Your task to perform on an android device: Go to accessibility settings Image 0: 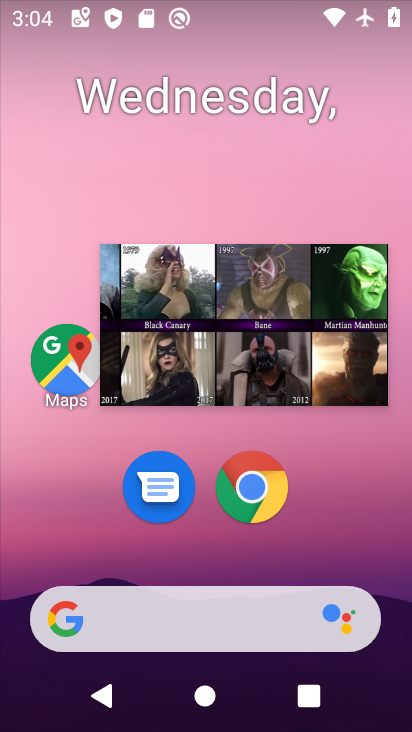
Step 0: click (366, 261)
Your task to perform on an android device: Go to accessibility settings Image 1: 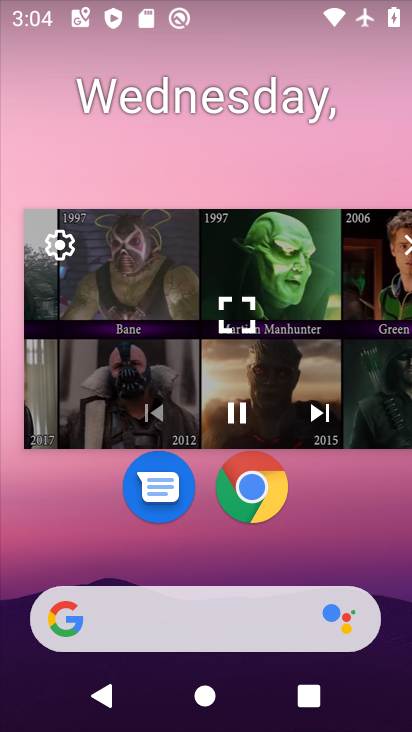
Step 1: click (410, 246)
Your task to perform on an android device: Go to accessibility settings Image 2: 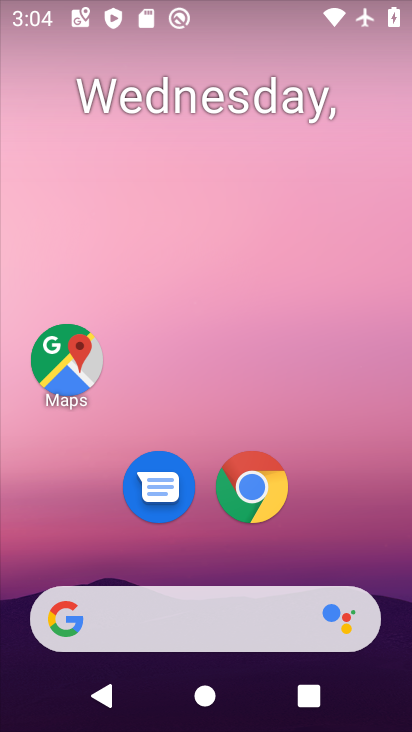
Step 2: drag from (333, 536) to (306, 59)
Your task to perform on an android device: Go to accessibility settings Image 3: 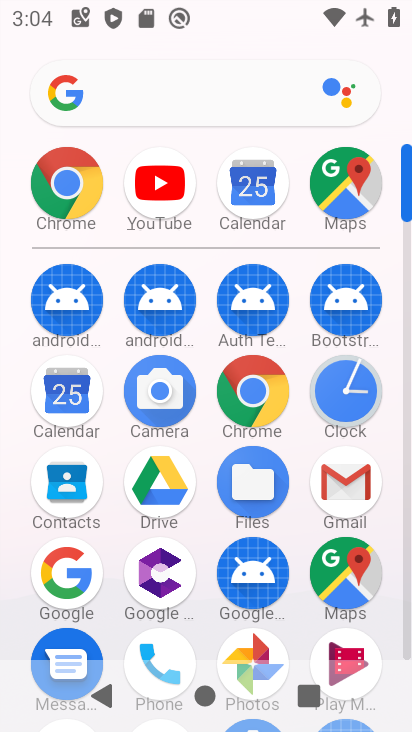
Step 3: drag from (387, 587) to (410, 149)
Your task to perform on an android device: Go to accessibility settings Image 4: 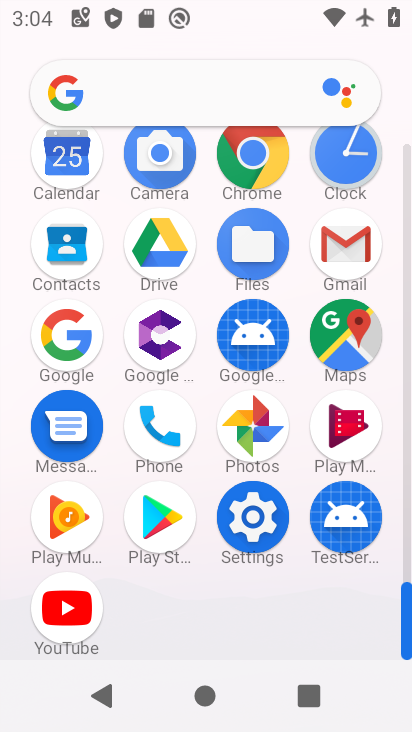
Step 4: click (248, 540)
Your task to perform on an android device: Go to accessibility settings Image 5: 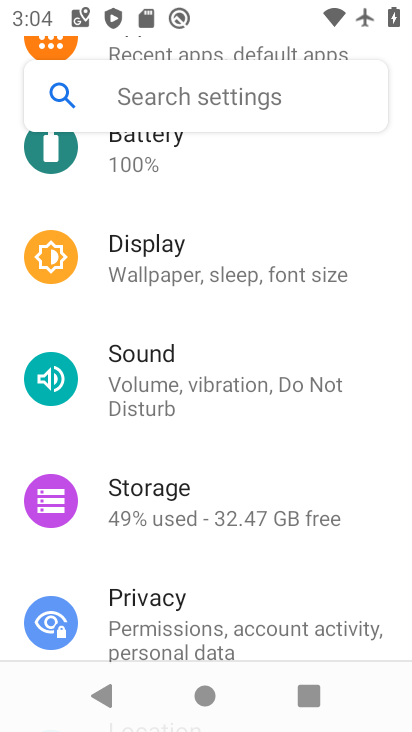
Step 5: drag from (264, 626) to (345, 89)
Your task to perform on an android device: Go to accessibility settings Image 6: 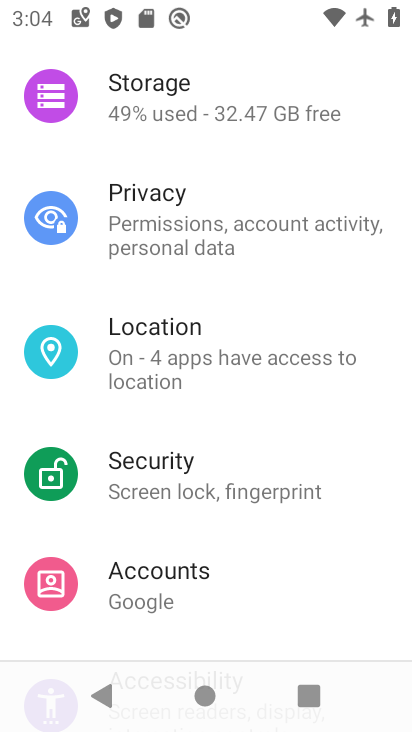
Step 6: drag from (299, 534) to (390, 39)
Your task to perform on an android device: Go to accessibility settings Image 7: 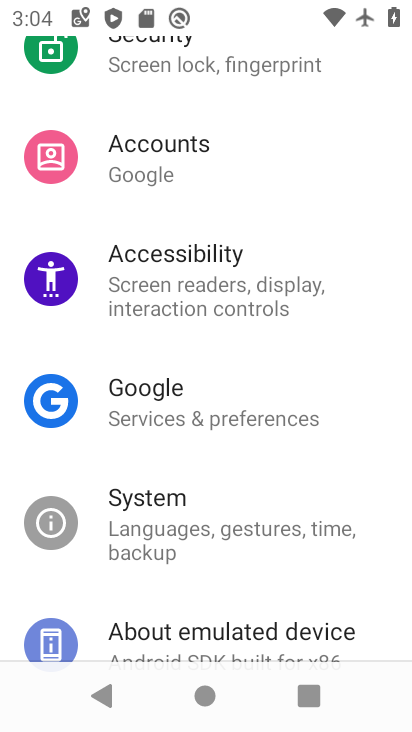
Step 7: click (223, 315)
Your task to perform on an android device: Go to accessibility settings Image 8: 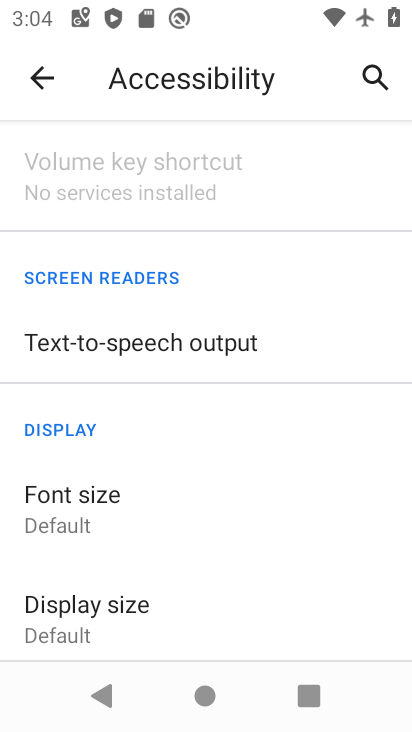
Step 8: task complete